Your task to perform on an android device: open chrome privacy settings Image 0: 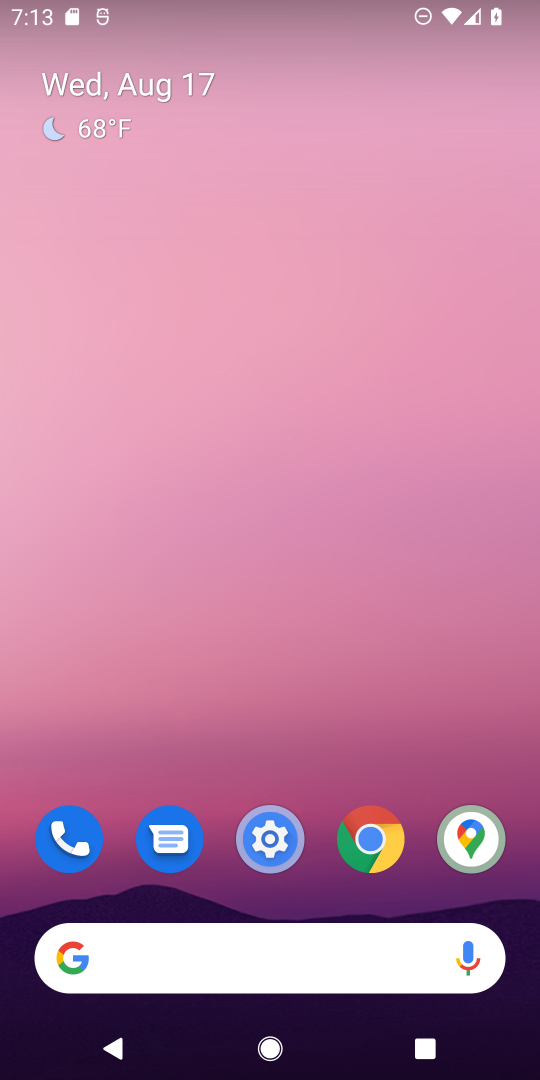
Step 0: click (381, 849)
Your task to perform on an android device: open chrome privacy settings Image 1: 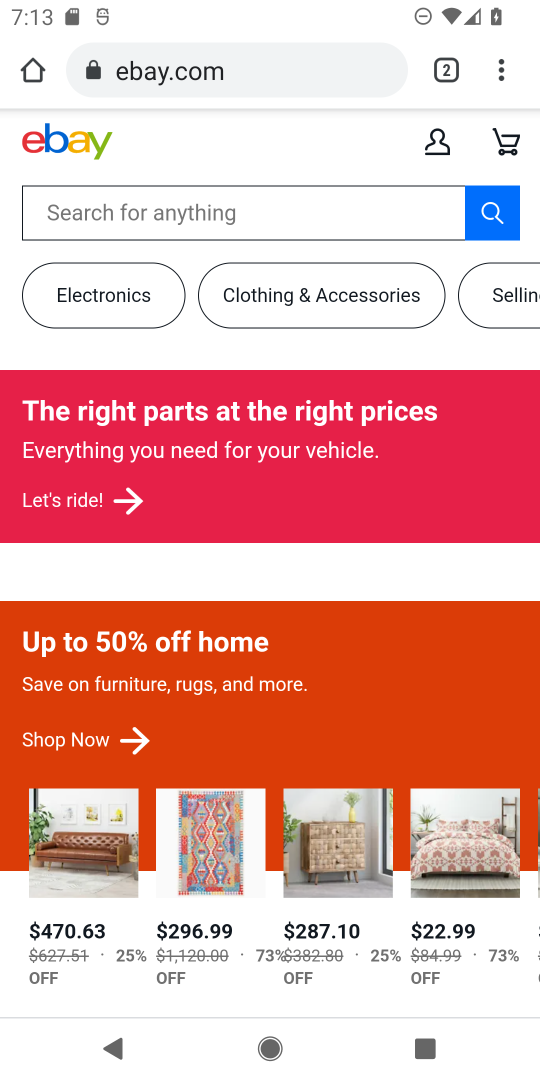
Step 1: click (498, 88)
Your task to perform on an android device: open chrome privacy settings Image 2: 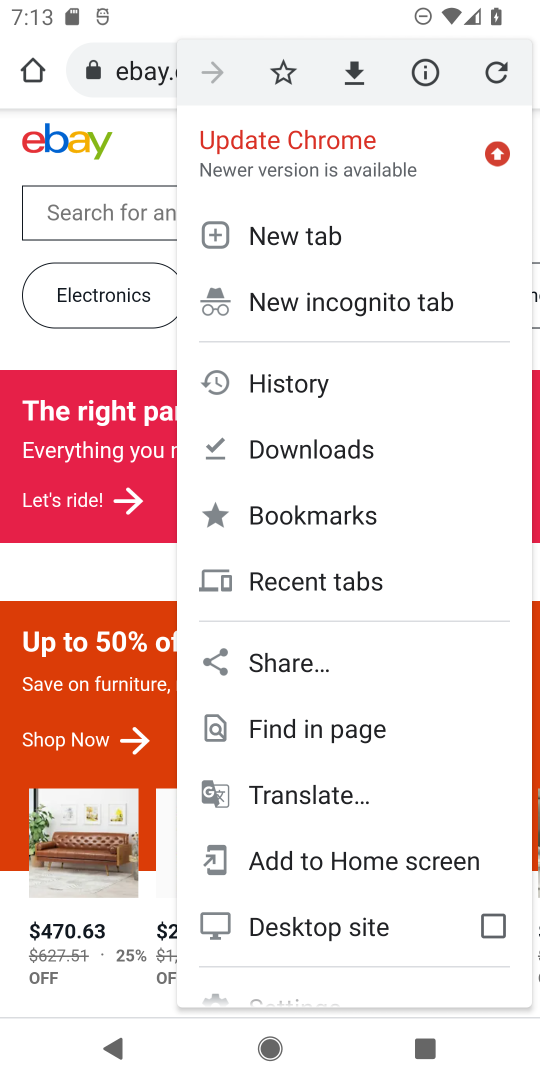
Step 2: drag from (261, 858) to (319, 13)
Your task to perform on an android device: open chrome privacy settings Image 3: 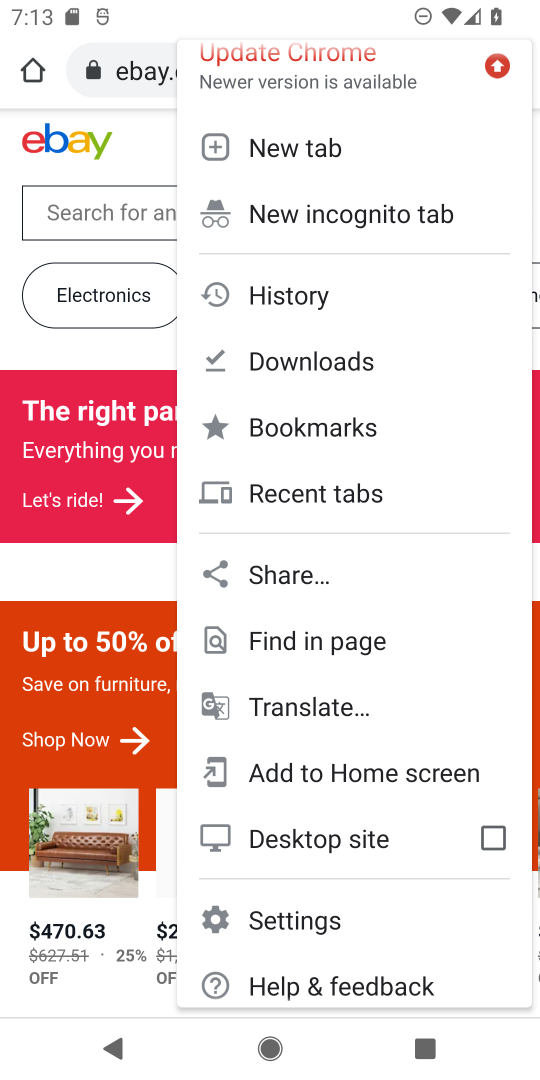
Step 3: click (287, 876)
Your task to perform on an android device: open chrome privacy settings Image 4: 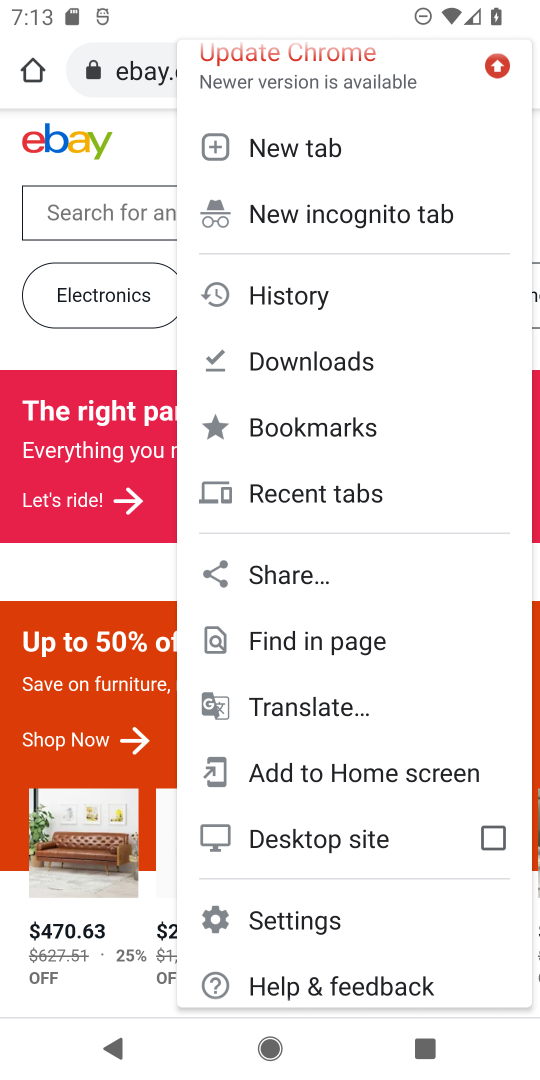
Step 4: click (271, 909)
Your task to perform on an android device: open chrome privacy settings Image 5: 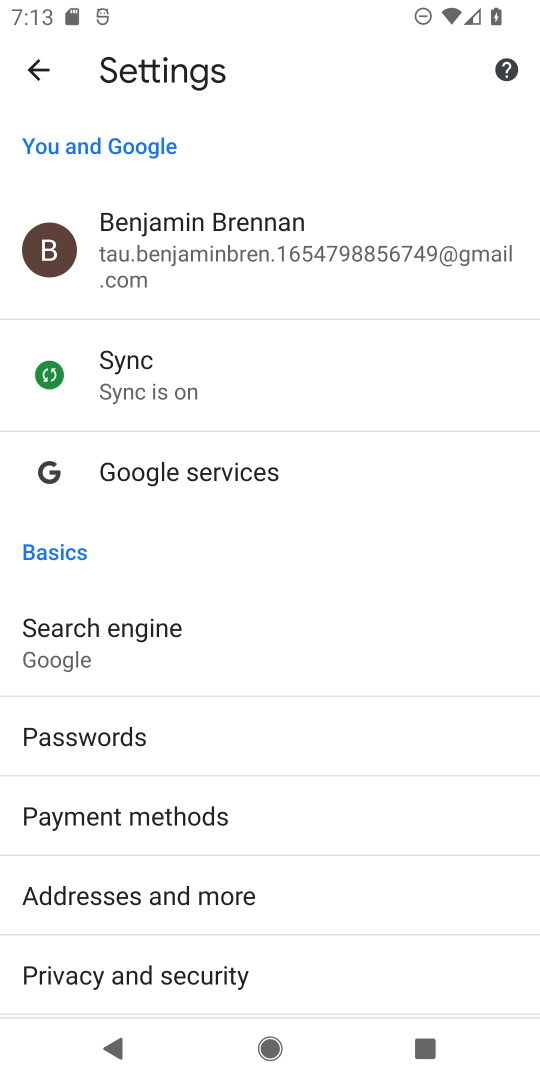
Step 5: drag from (271, 909) to (196, 640)
Your task to perform on an android device: open chrome privacy settings Image 6: 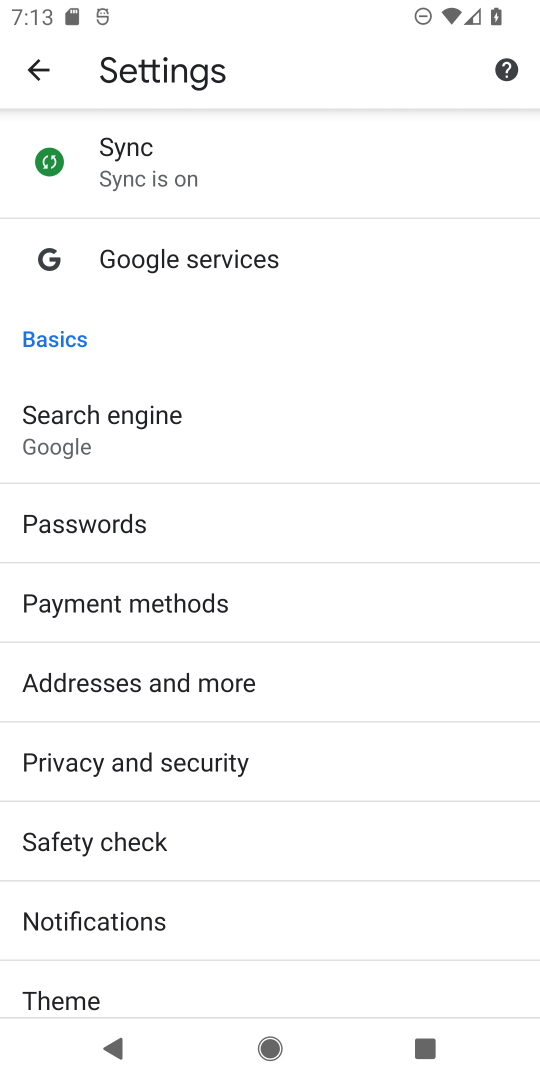
Step 6: click (59, 788)
Your task to perform on an android device: open chrome privacy settings Image 7: 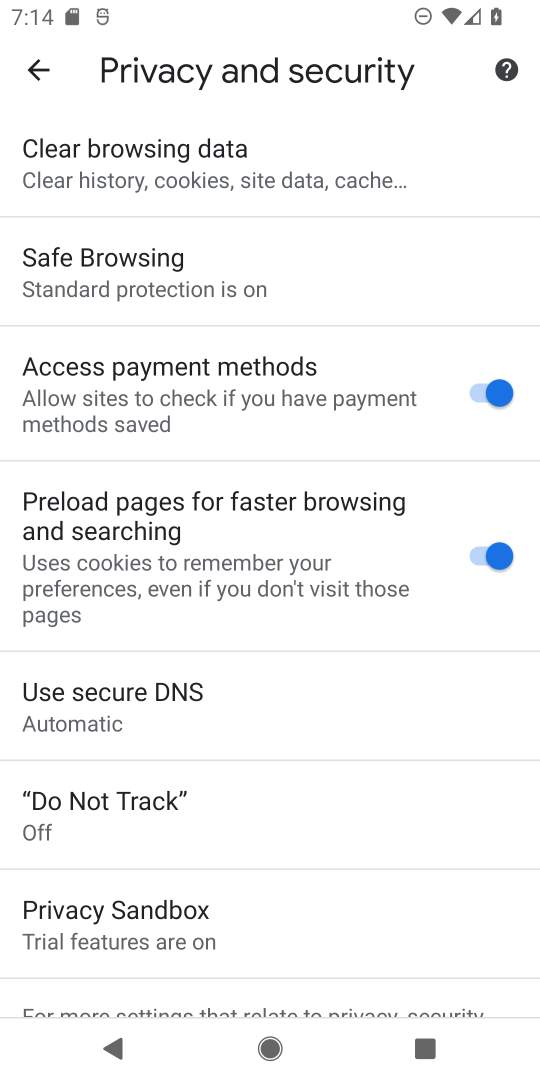
Step 7: task complete